Your task to perform on an android device: change the clock display to show seconds Image 0: 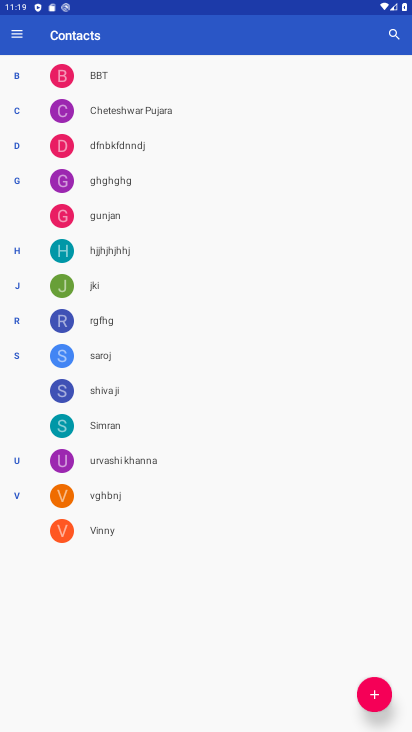
Step 0: press home button
Your task to perform on an android device: change the clock display to show seconds Image 1: 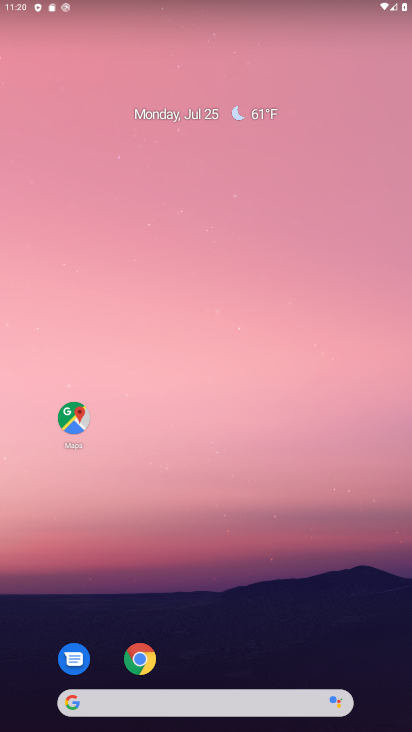
Step 1: drag from (214, 723) to (196, 73)
Your task to perform on an android device: change the clock display to show seconds Image 2: 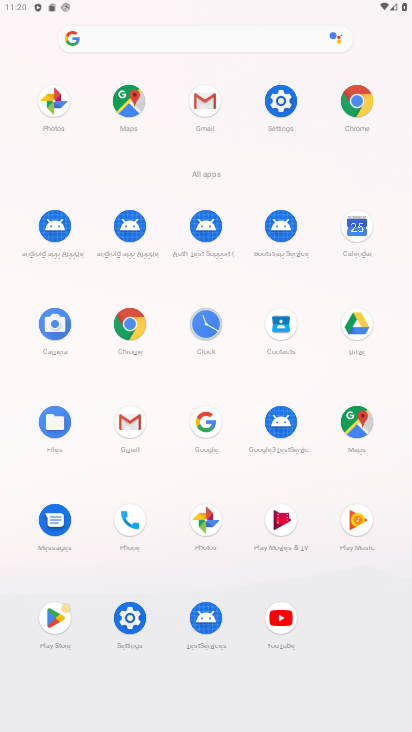
Step 2: click (196, 327)
Your task to perform on an android device: change the clock display to show seconds Image 3: 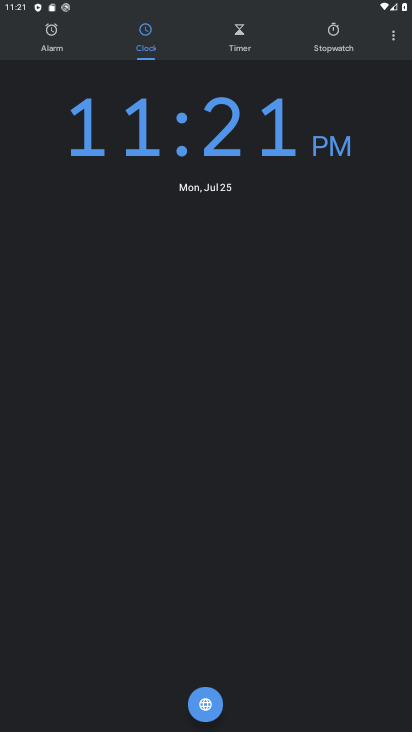
Step 3: click (394, 44)
Your task to perform on an android device: change the clock display to show seconds Image 4: 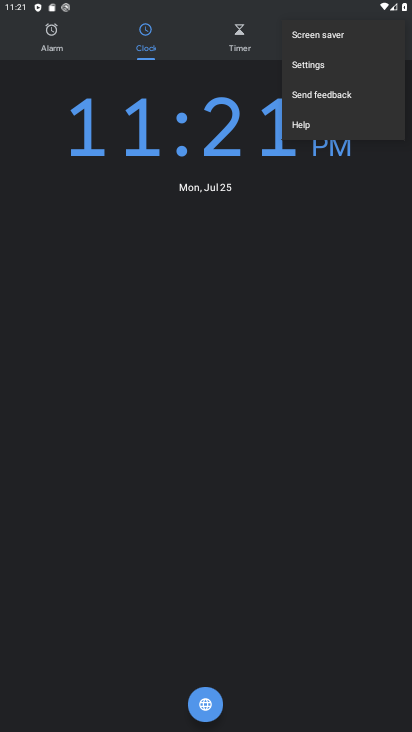
Step 4: click (313, 68)
Your task to perform on an android device: change the clock display to show seconds Image 5: 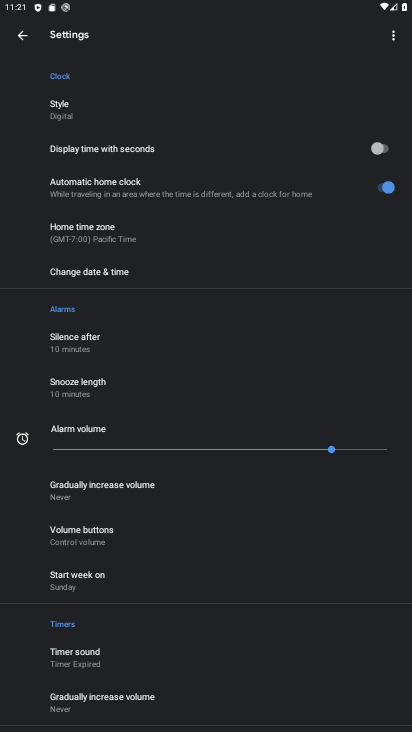
Step 5: click (380, 149)
Your task to perform on an android device: change the clock display to show seconds Image 6: 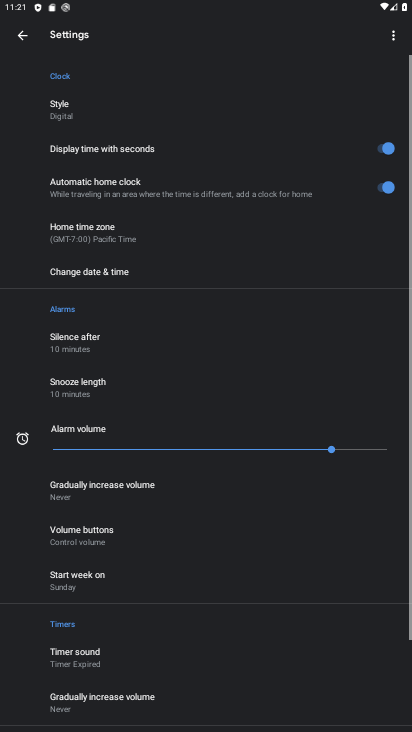
Step 6: task complete